Your task to perform on an android device: toggle notification dots Image 0: 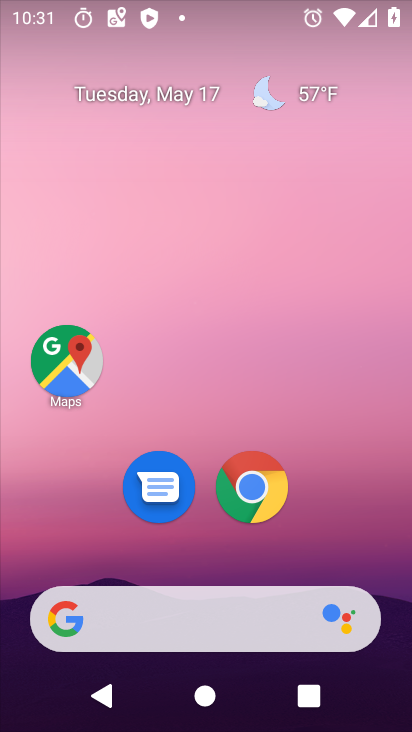
Step 0: drag from (233, 723) to (239, 53)
Your task to perform on an android device: toggle notification dots Image 1: 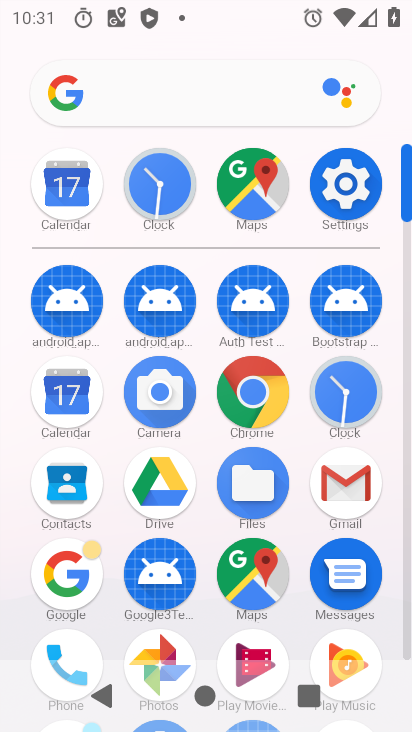
Step 1: click (349, 183)
Your task to perform on an android device: toggle notification dots Image 2: 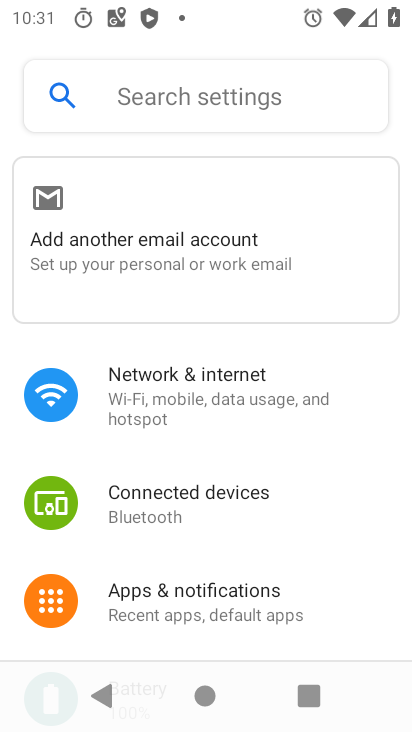
Step 2: click (204, 597)
Your task to perform on an android device: toggle notification dots Image 3: 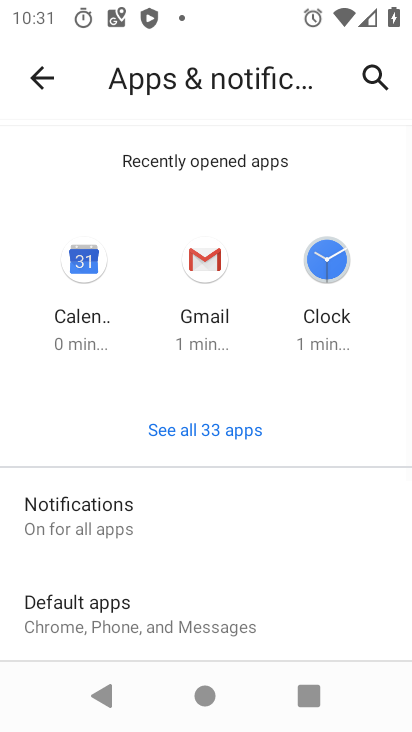
Step 3: click (85, 512)
Your task to perform on an android device: toggle notification dots Image 4: 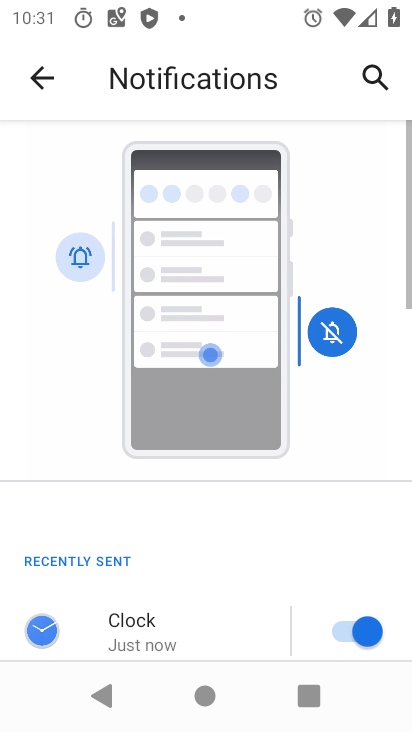
Step 4: drag from (179, 630) to (186, 300)
Your task to perform on an android device: toggle notification dots Image 5: 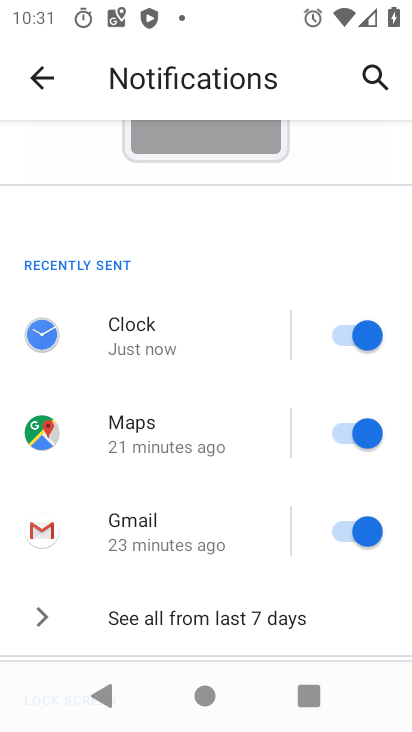
Step 5: drag from (204, 637) to (208, 284)
Your task to perform on an android device: toggle notification dots Image 6: 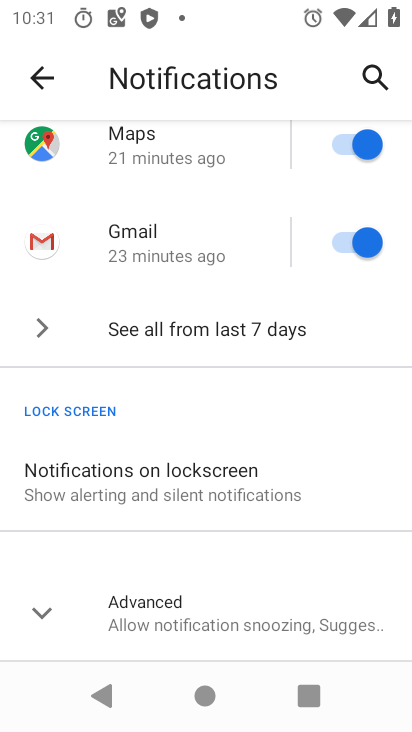
Step 6: click (137, 606)
Your task to perform on an android device: toggle notification dots Image 7: 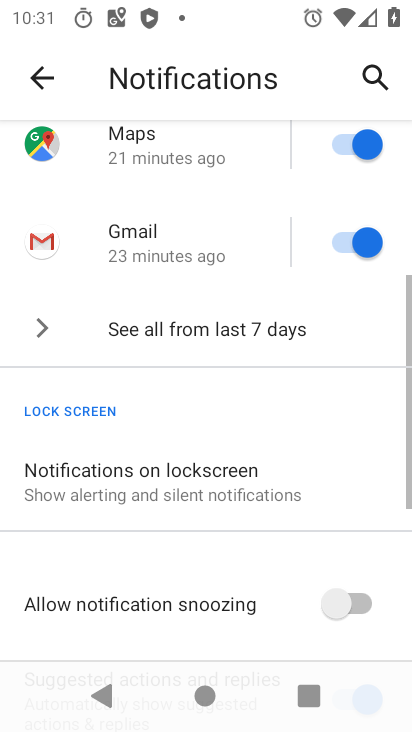
Step 7: drag from (249, 637) to (249, 369)
Your task to perform on an android device: toggle notification dots Image 8: 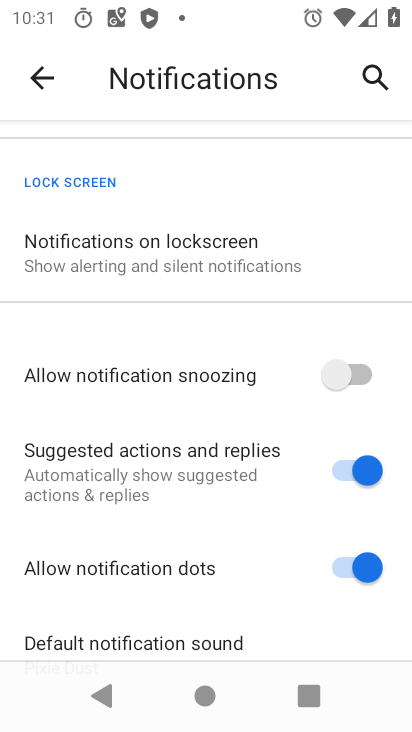
Step 8: click (350, 567)
Your task to perform on an android device: toggle notification dots Image 9: 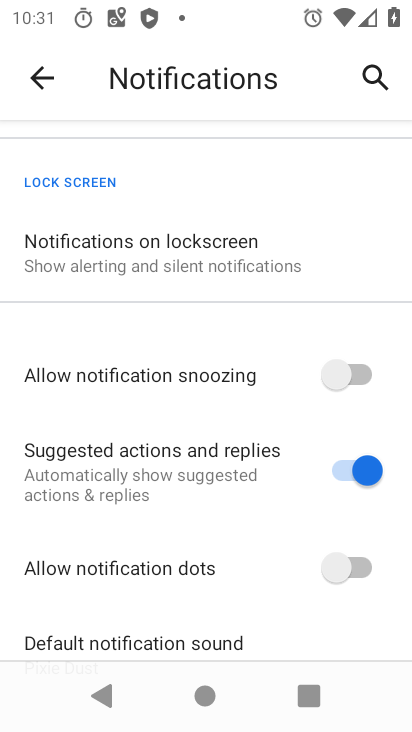
Step 9: task complete